Your task to perform on an android device: Open the phone app and click the voicemail tab. Image 0: 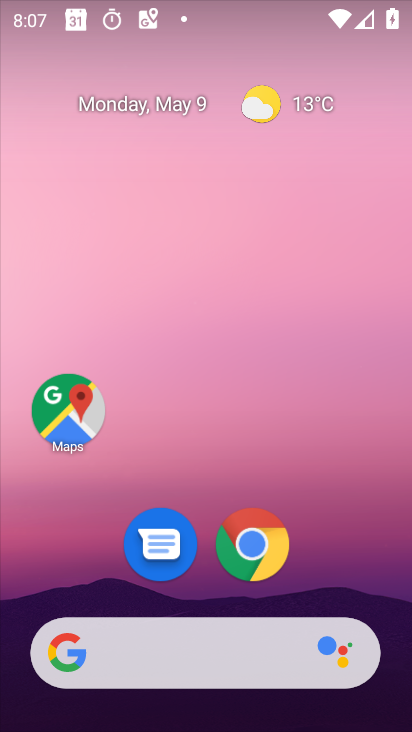
Step 0: drag from (359, 554) to (302, 0)
Your task to perform on an android device: Open the phone app and click the voicemail tab. Image 1: 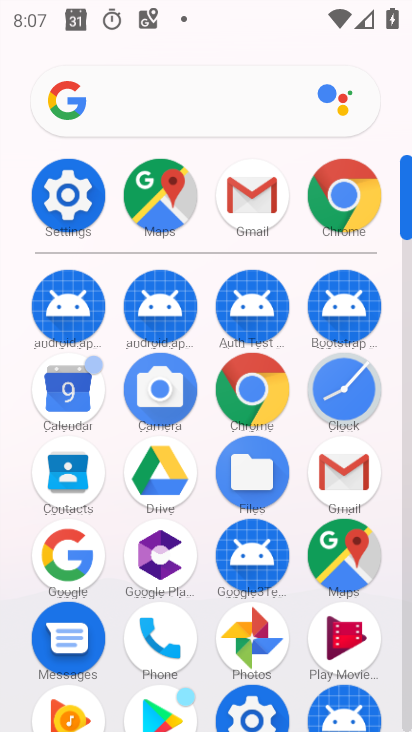
Step 1: click (154, 641)
Your task to perform on an android device: Open the phone app and click the voicemail tab. Image 2: 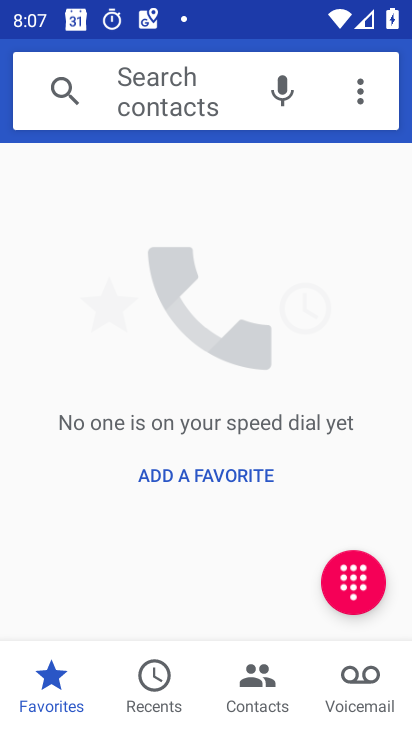
Step 2: click (377, 697)
Your task to perform on an android device: Open the phone app and click the voicemail tab. Image 3: 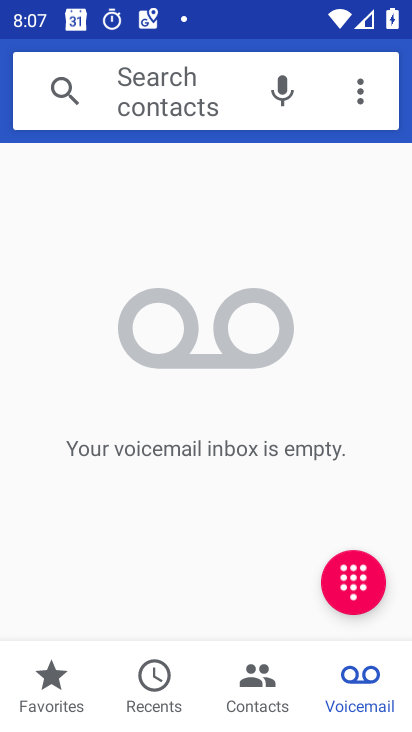
Step 3: task complete